Your task to perform on an android device: check battery use Image 0: 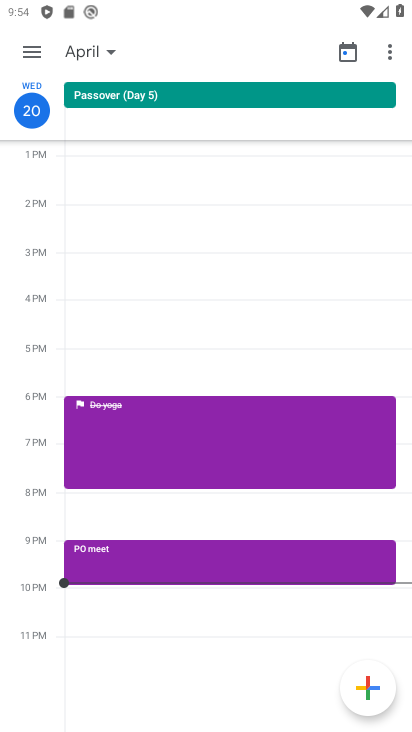
Step 0: press back button
Your task to perform on an android device: check battery use Image 1: 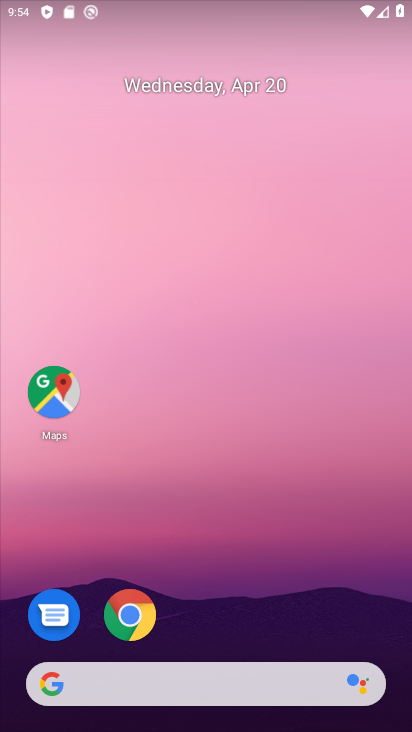
Step 1: drag from (206, 619) to (120, 5)
Your task to perform on an android device: check battery use Image 2: 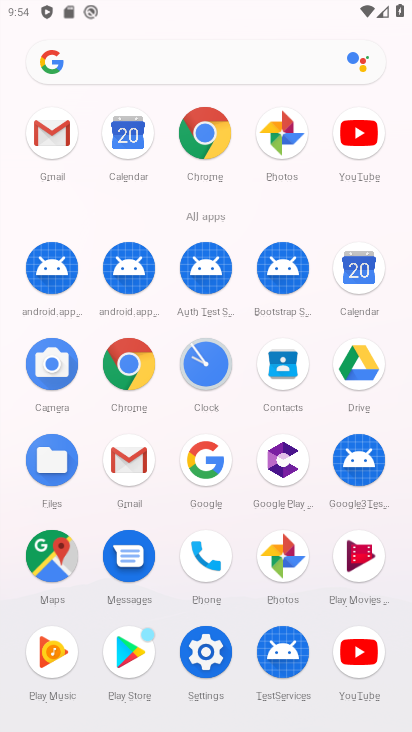
Step 2: click (218, 647)
Your task to perform on an android device: check battery use Image 3: 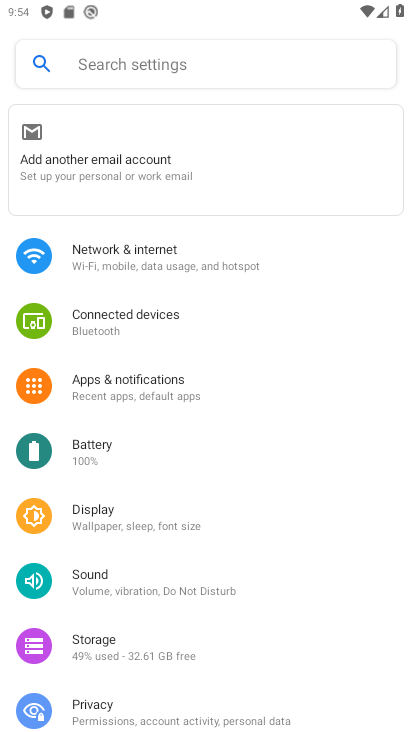
Step 3: click (203, 457)
Your task to perform on an android device: check battery use Image 4: 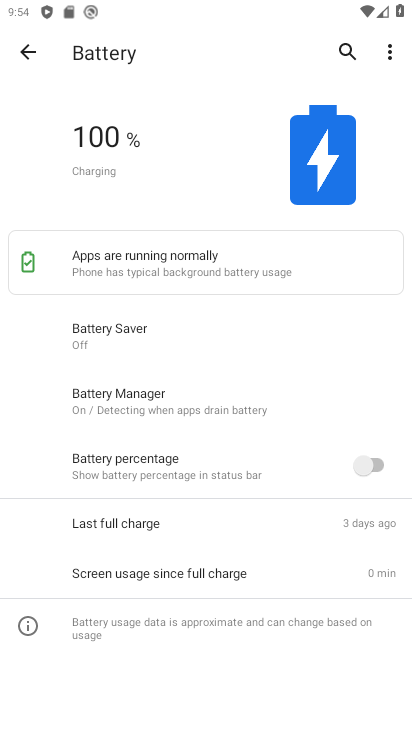
Step 4: task complete